Your task to perform on an android device: Go to wifi settings Image 0: 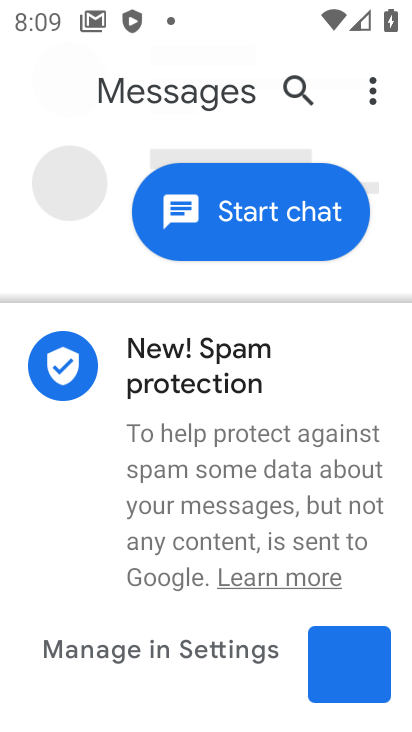
Step 0: press home button
Your task to perform on an android device: Go to wifi settings Image 1: 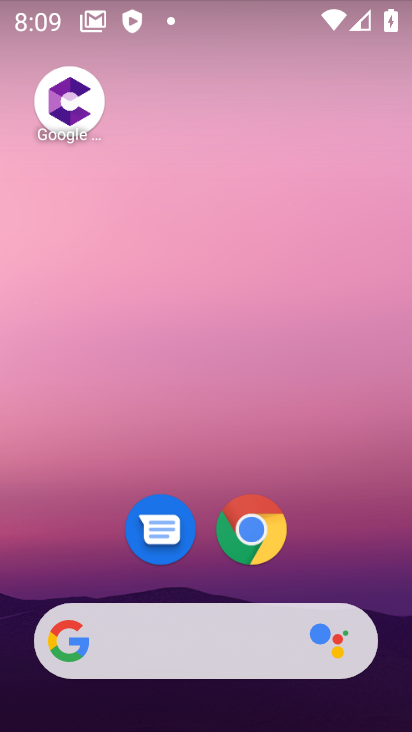
Step 1: drag from (327, 543) to (293, 13)
Your task to perform on an android device: Go to wifi settings Image 2: 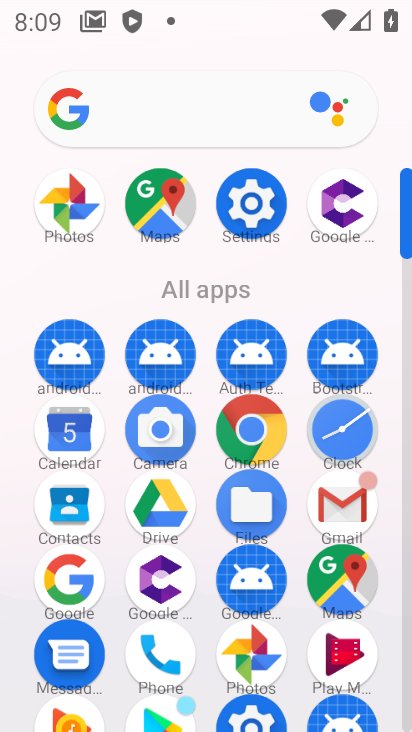
Step 2: click (250, 200)
Your task to perform on an android device: Go to wifi settings Image 3: 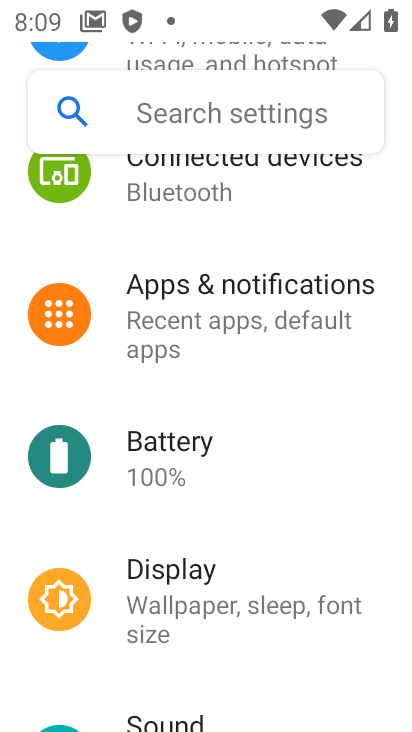
Step 3: drag from (241, 241) to (319, 633)
Your task to perform on an android device: Go to wifi settings Image 4: 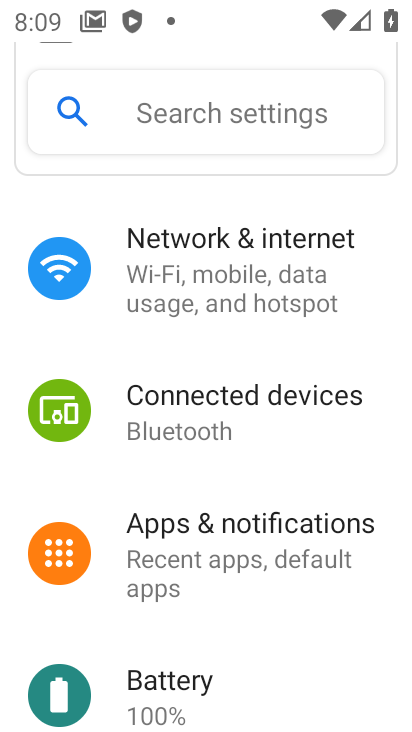
Step 4: click (217, 267)
Your task to perform on an android device: Go to wifi settings Image 5: 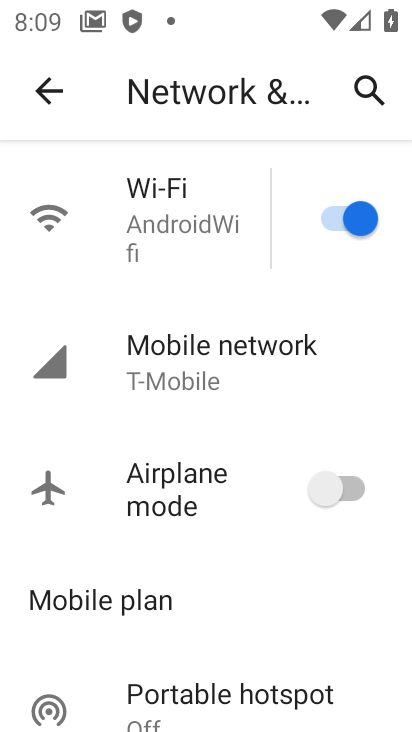
Step 5: click (166, 208)
Your task to perform on an android device: Go to wifi settings Image 6: 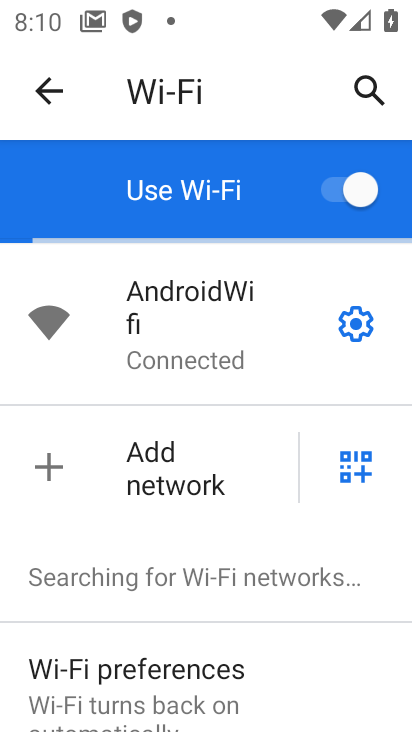
Step 6: task complete